Your task to perform on an android device: uninstall "Microsoft Excel" Image 0: 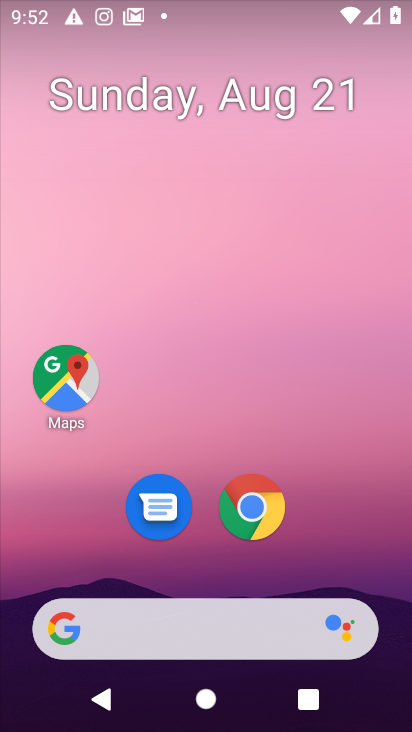
Step 0: drag from (191, 282) to (294, 31)
Your task to perform on an android device: uninstall "Microsoft Excel" Image 1: 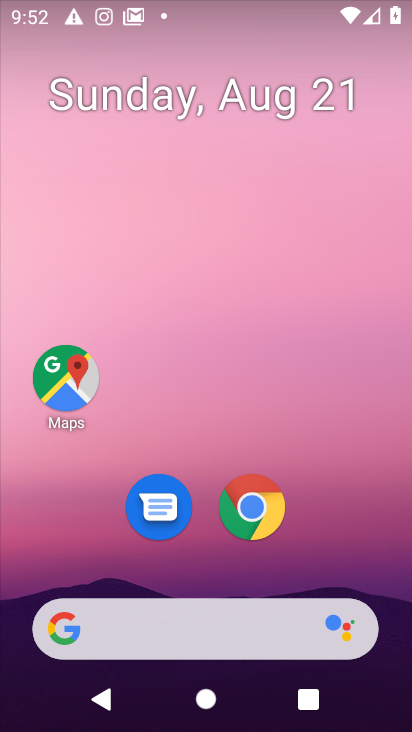
Step 1: drag from (205, 566) to (292, 50)
Your task to perform on an android device: uninstall "Microsoft Excel" Image 2: 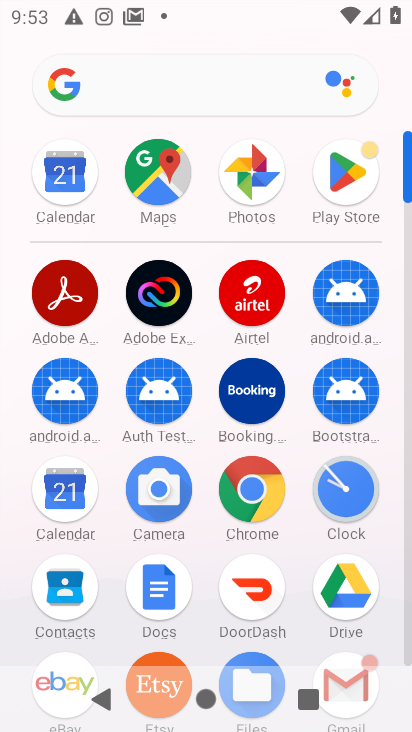
Step 2: click (344, 167)
Your task to perform on an android device: uninstall "Microsoft Excel" Image 3: 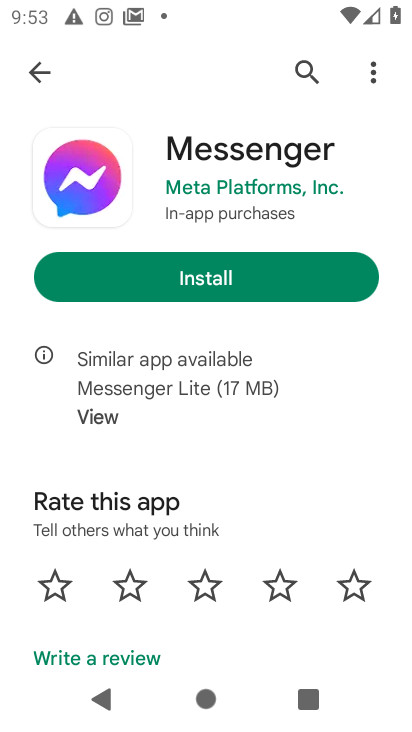
Step 3: task complete